Your task to perform on an android device: see creations saved in the google photos Image 0: 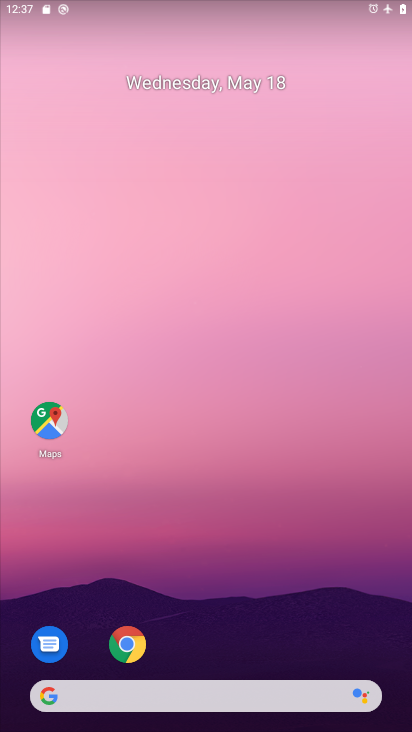
Step 0: drag from (210, 649) to (254, 106)
Your task to perform on an android device: see creations saved in the google photos Image 1: 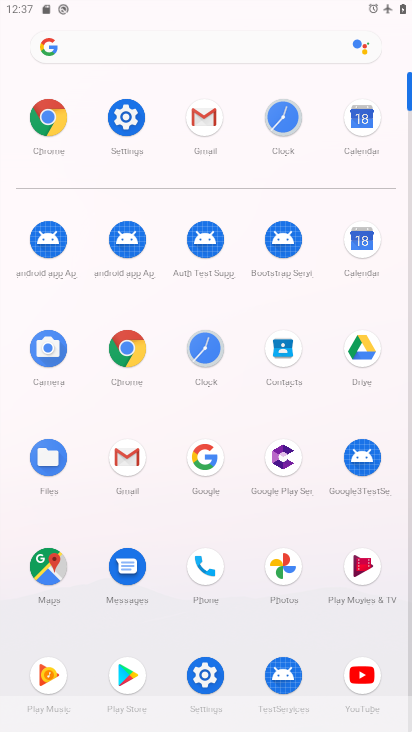
Step 1: click (273, 558)
Your task to perform on an android device: see creations saved in the google photos Image 2: 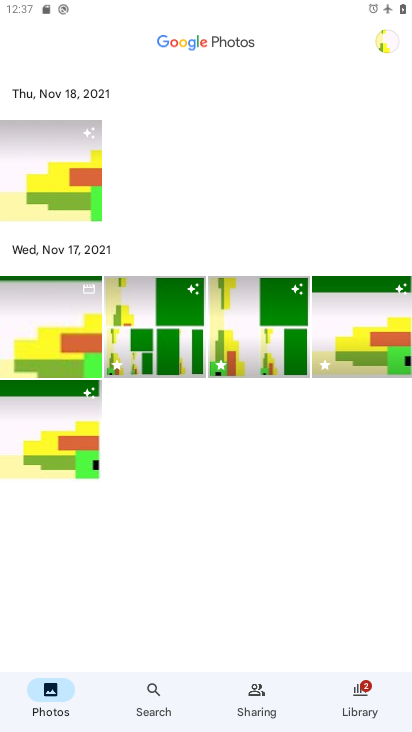
Step 2: click (143, 679)
Your task to perform on an android device: see creations saved in the google photos Image 3: 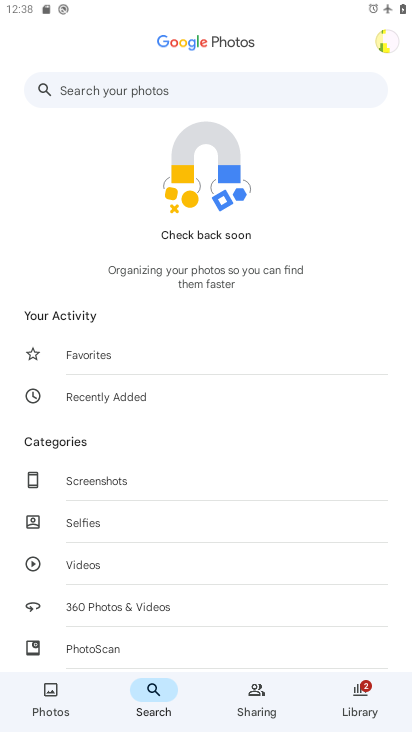
Step 3: drag from (173, 594) to (184, 227)
Your task to perform on an android device: see creations saved in the google photos Image 4: 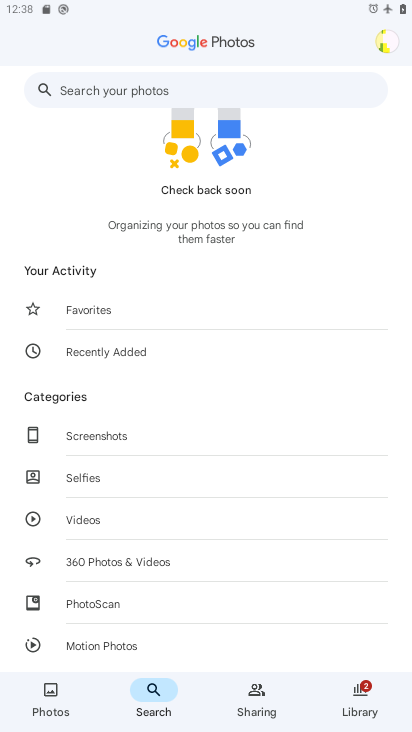
Step 4: drag from (164, 583) to (185, 112)
Your task to perform on an android device: see creations saved in the google photos Image 5: 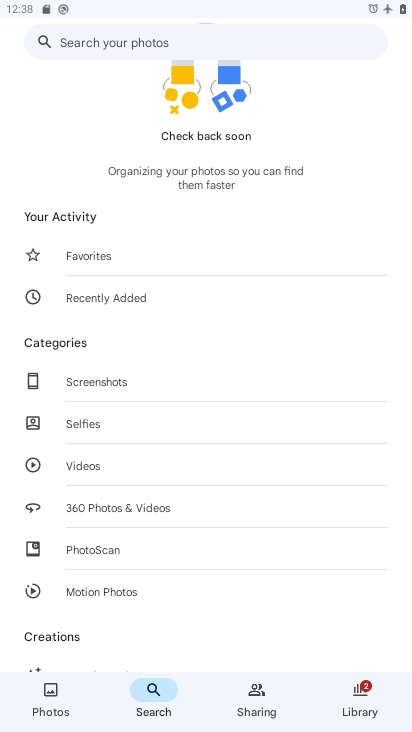
Step 5: drag from (153, 617) to (187, 78)
Your task to perform on an android device: see creations saved in the google photos Image 6: 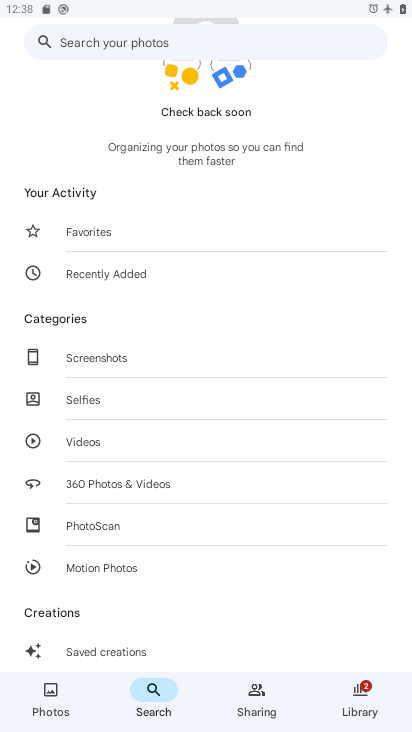
Step 6: click (133, 646)
Your task to perform on an android device: see creations saved in the google photos Image 7: 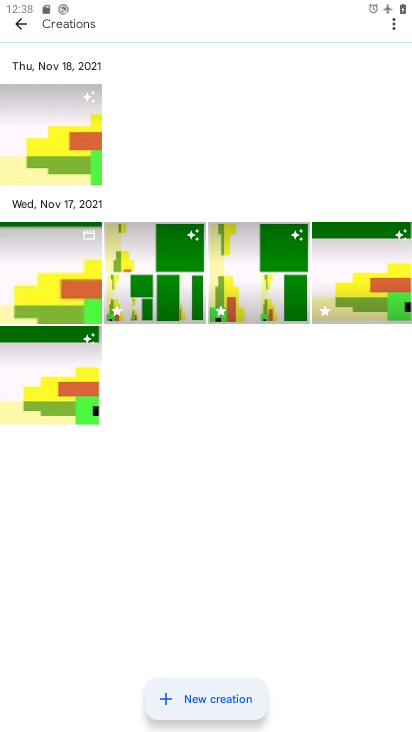
Step 7: task complete